Your task to perform on an android device: search for starred emails in the gmail app Image 0: 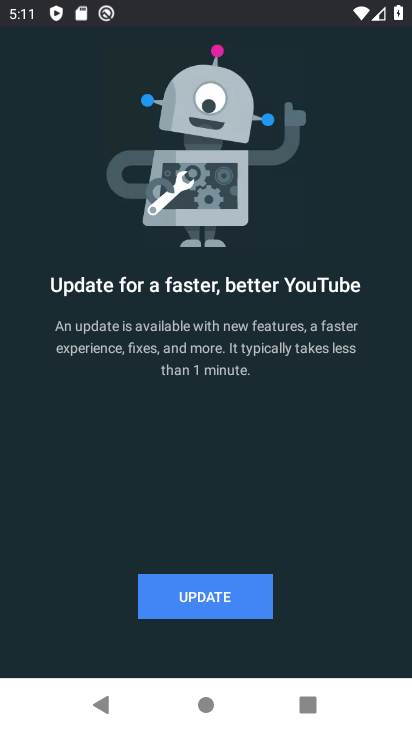
Step 0: press home button
Your task to perform on an android device: search for starred emails in the gmail app Image 1: 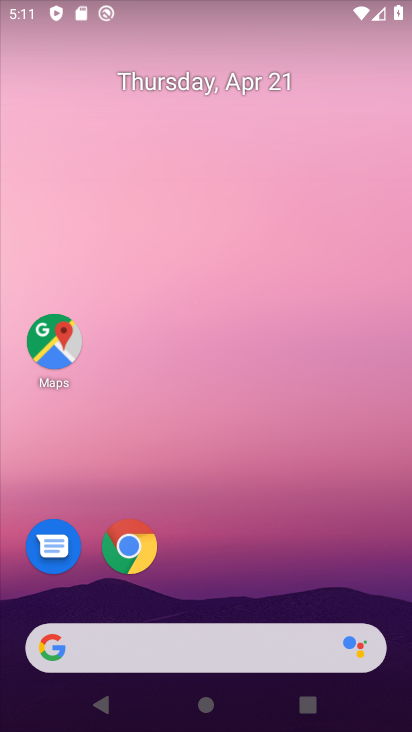
Step 1: drag from (282, 578) to (308, 40)
Your task to perform on an android device: search for starred emails in the gmail app Image 2: 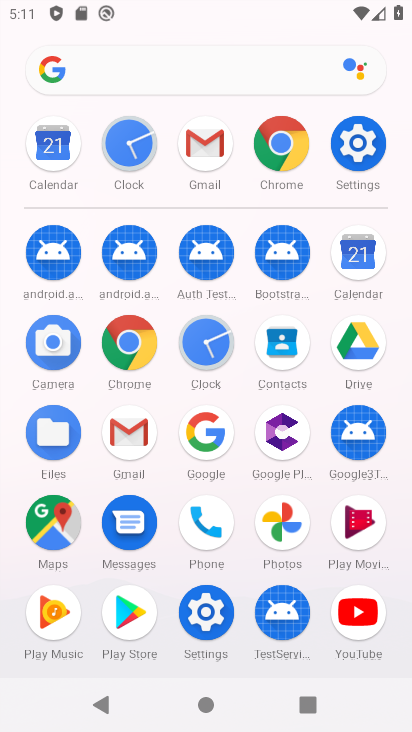
Step 2: click (135, 438)
Your task to perform on an android device: search for starred emails in the gmail app Image 3: 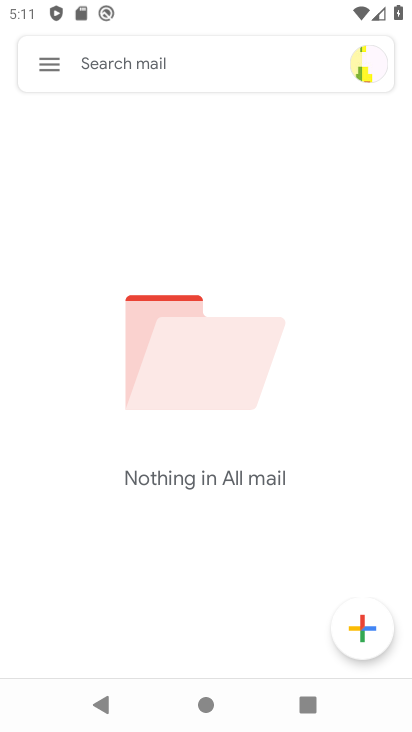
Step 3: click (57, 63)
Your task to perform on an android device: search for starred emails in the gmail app Image 4: 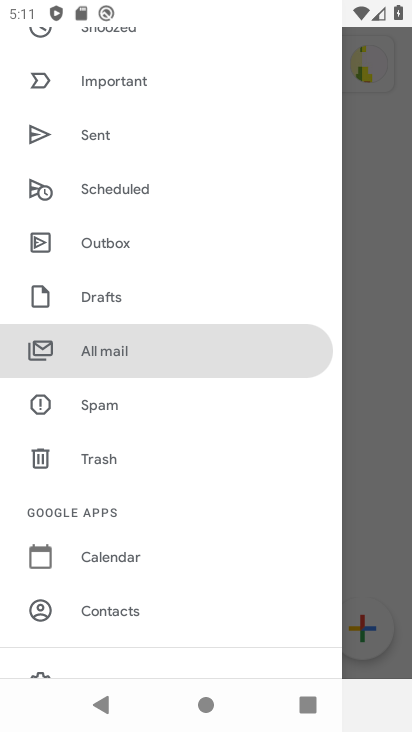
Step 4: drag from (152, 128) to (127, 507)
Your task to perform on an android device: search for starred emails in the gmail app Image 5: 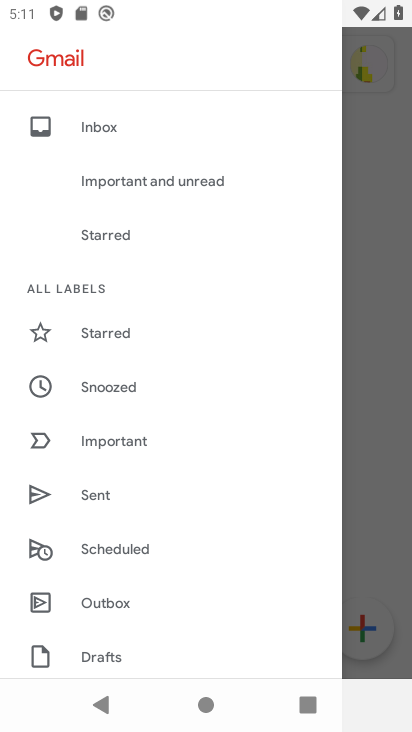
Step 5: click (130, 232)
Your task to perform on an android device: search for starred emails in the gmail app Image 6: 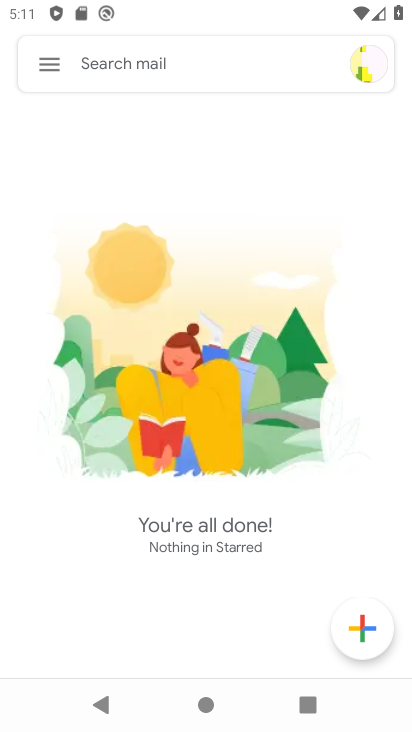
Step 6: task complete